Your task to perform on an android device: check out phone information Image 0: 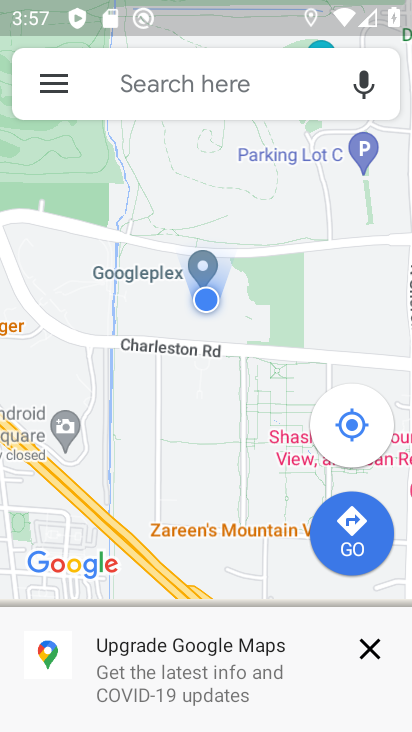
Step 0: press home button
Your task to perform on an android device: check out phone information Image 1: 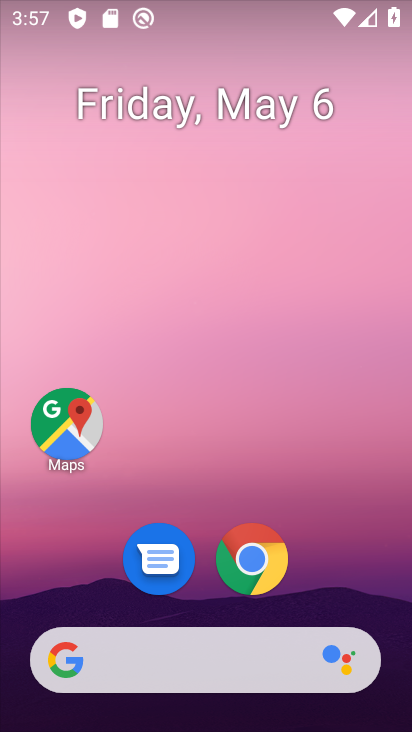
Step 1: drag from (129, 623) to (125, 193)
Your task to perform on an android device: check out phone information Image 2: 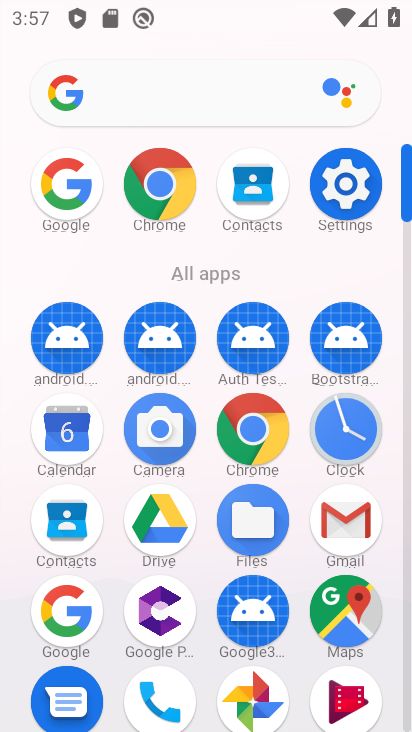
Step 2: click (158, 690)
Your task to perform on an android device: check out phone information Image 3: 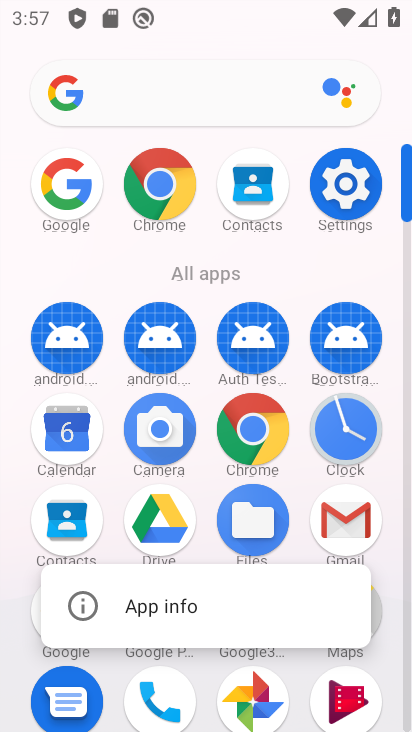
Step 3: click (163, 608)
Your task to perform on an android device: check out phone information Image 4: 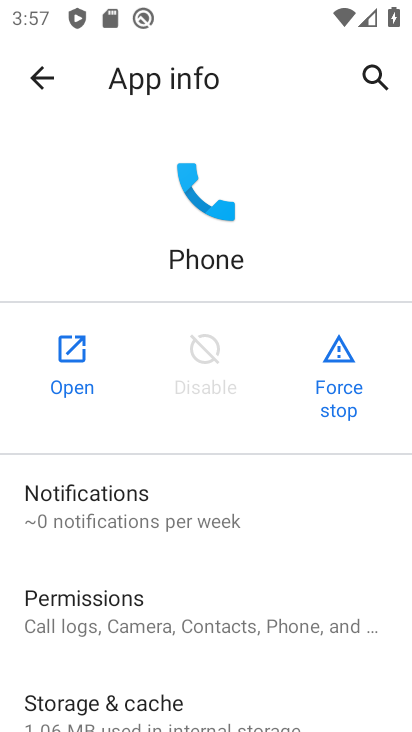
Step 4: drag from (152, 700) to (129, 321)
Your task to perform on an android device: check out phone information Image 5: 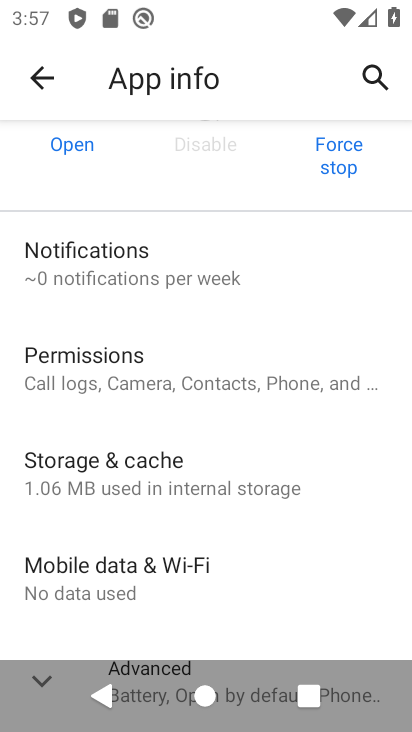
Step 5: drag from (136, 611) to (110, 250)
Your task to perform on an android device: check out phone information Image 6: 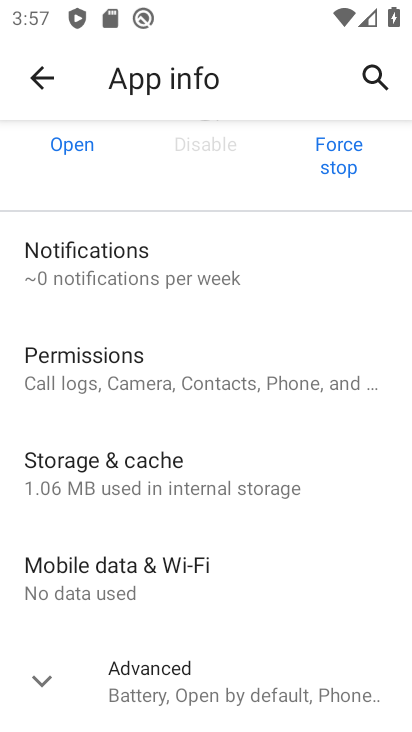
Step 6: click (137, 712)
Your task to perform on an android device: check out phone information Image 7: 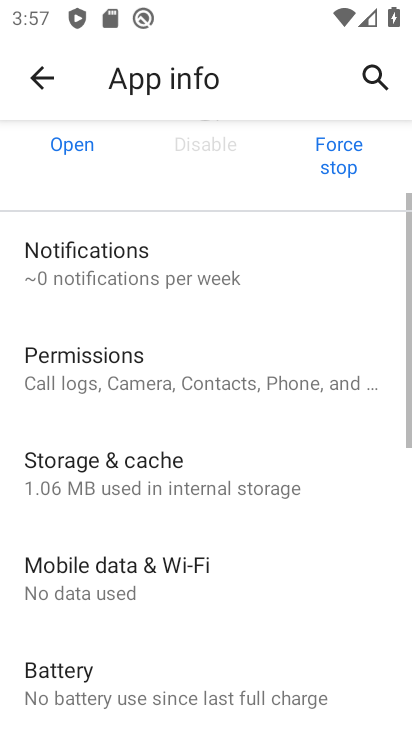
Step 7: task complete